Your task to perform on an android device: stop showing notifications on the lock screen Image 0: 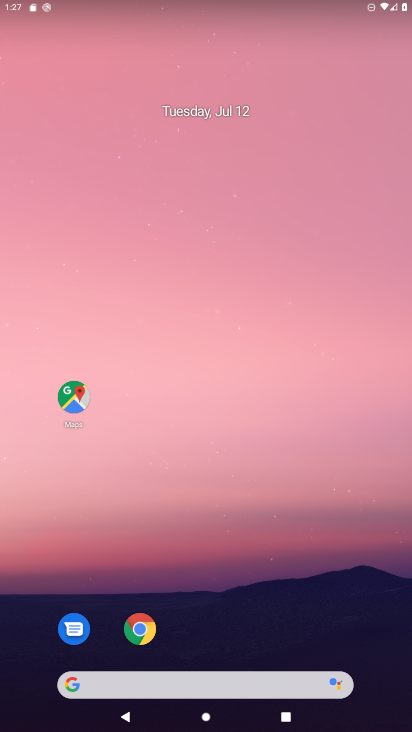
Step 0: press home button
Your task to perform on an android device: stop showing notifications on the lock screen Image 1: 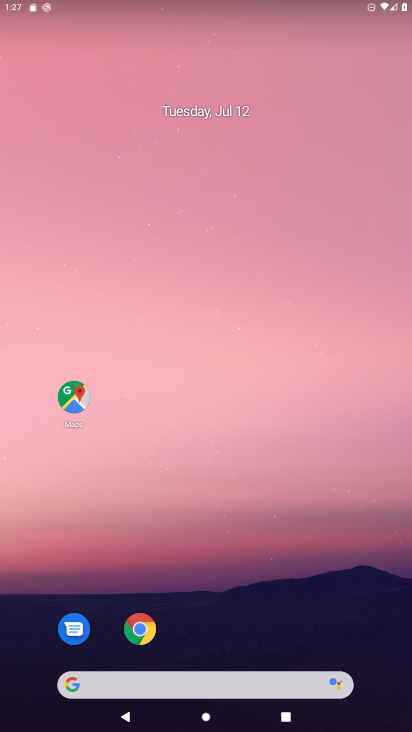
Step 1: drag from (217, 655) to (243, 20)
Your task to perform on an android device: stop showing notifications on the lock screen Image 2: 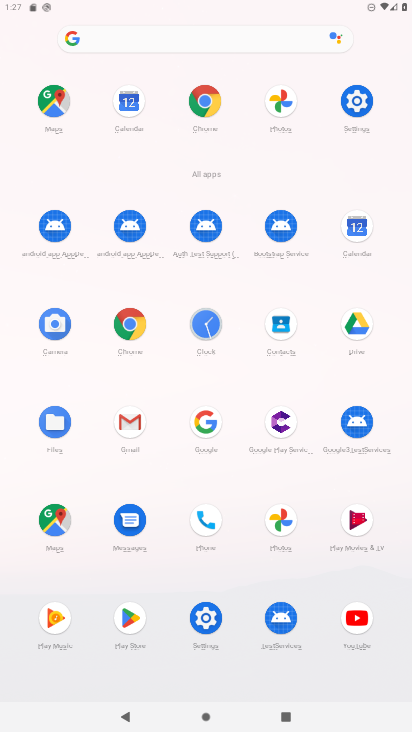
Step 2: click (359, 94)
Your task to perform on an android device: stop showing notifications on the lock screen Image 3: 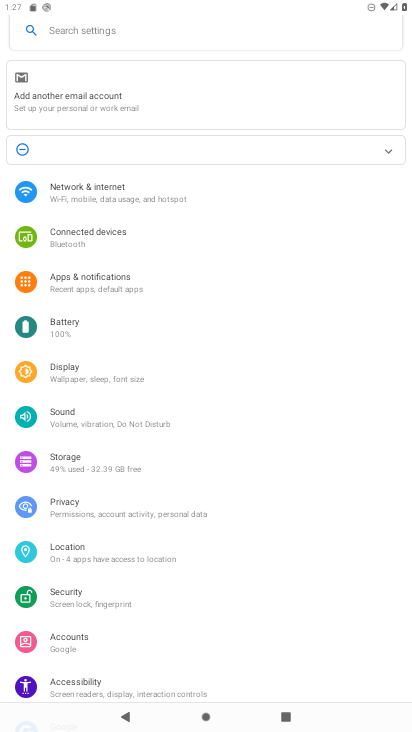
Step 3: click (133, 281)
Your task to perform on an android device: stop showing notifications on the lock screen Image 4: 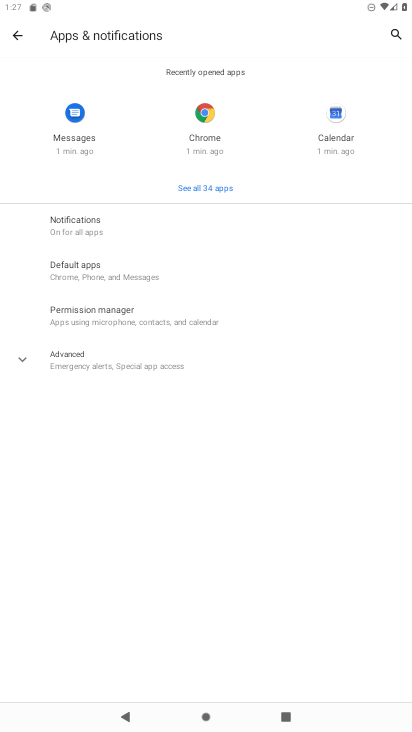
Step 4: click (115, 222)
Your task to perform on an android device: stop showing notifications on the lock screen Image 5: 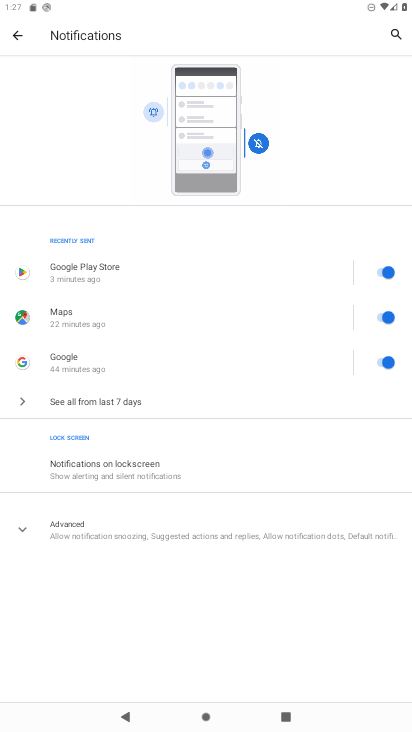
Step 5: click (195, 464)
Your task to perform on an android device: stop showing notifications on the lock screen Image 6: 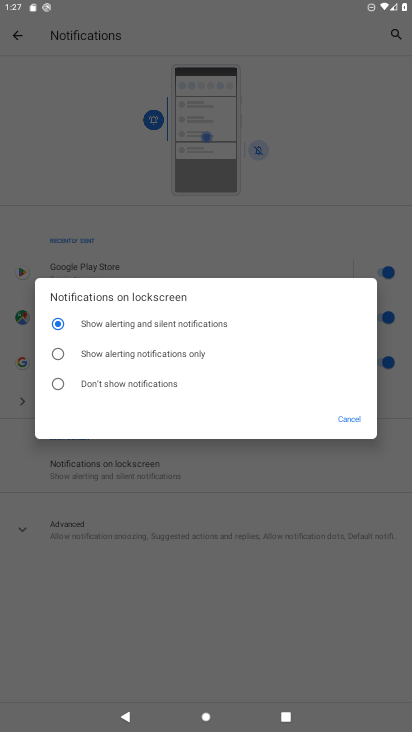
Step 6: click (62, 387)
Your task to perform on an android device: stop showing notifications on the lock screen Image 7: 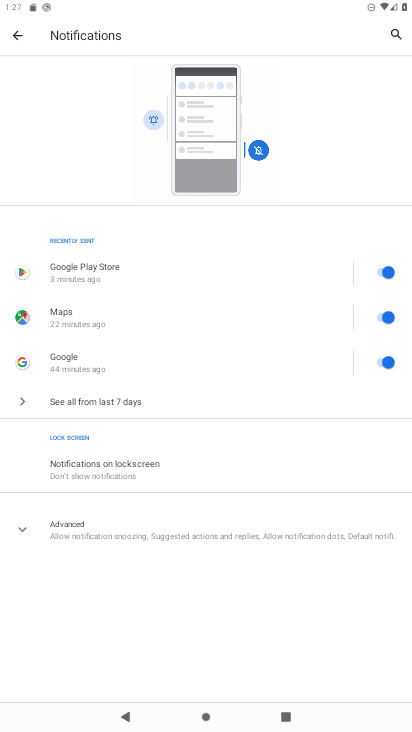
Step 7: task complete